Your task to perform on an android device: Search for vegetarian restaurants on Maps Image 0: 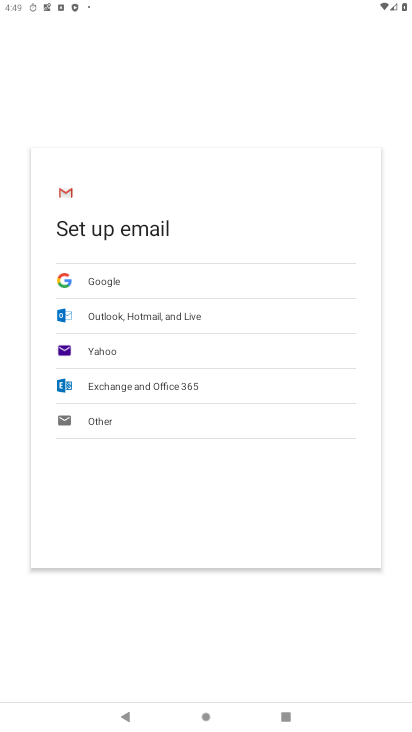
Step 0: press home button
Your task to perform on an android device: Search for vegetarian restaurants on Maps Image 1: 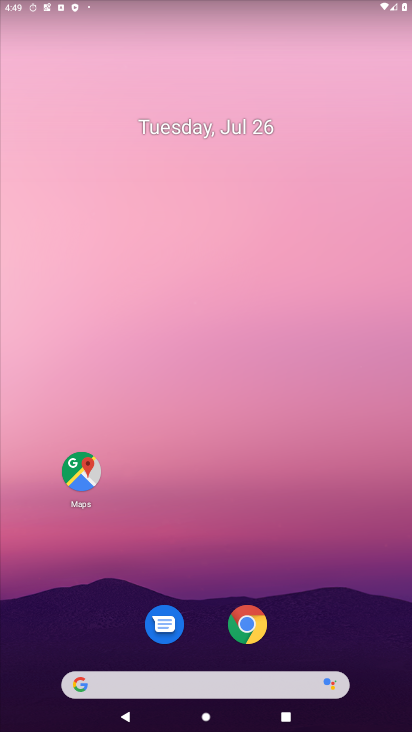
Step 1: drag from (264, 697) to (335, 22)
Your task to perform on an android device: Search for vegetarian restaurants on Maps Image 2: 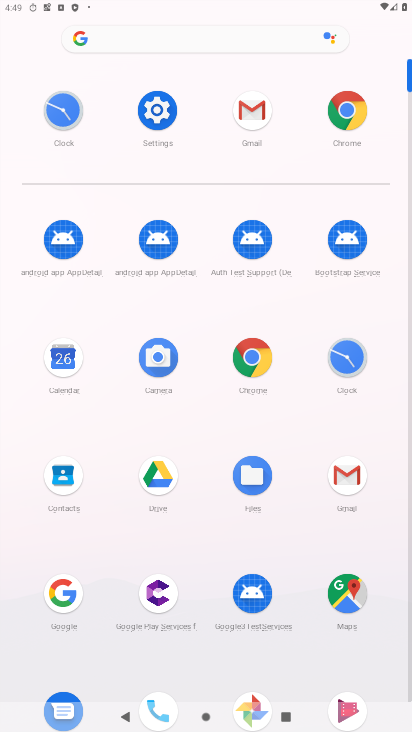
Step 2: click (334, 593)
Your task to perform on an android device: Search for vegetarian restaurants on Maps Image 3: 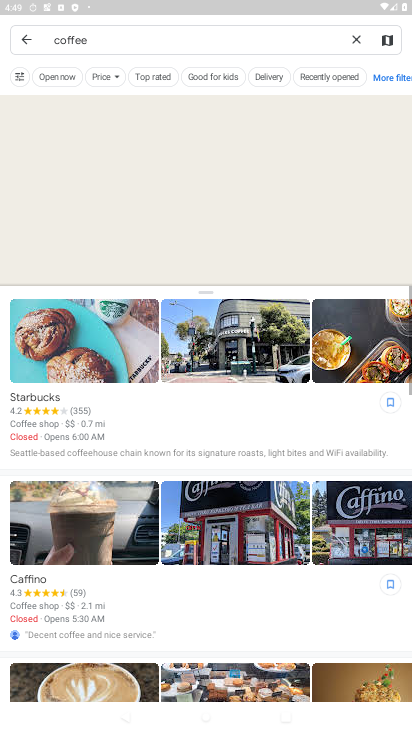
Step 3: click (357, 35)
Your task to perform on an android device: Search for vegetarian restaurants on Maps Image 4: 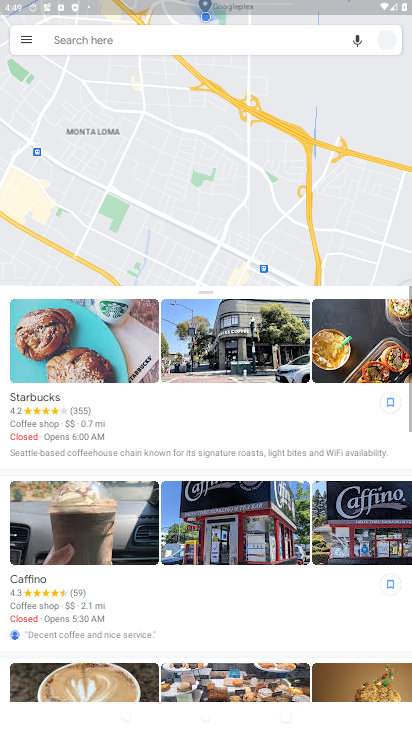
Step 4: click (121, 43)
Your task to perform on an android device: Search for vegetarian restaurants on Maps Image 5: 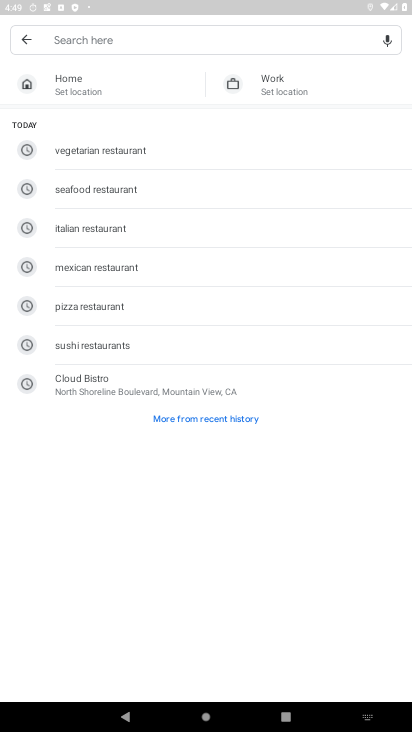
Step 5: click (86, 150)
Your task to perform on an android device: Search for vegetarian restaurants on Maps Image 6: 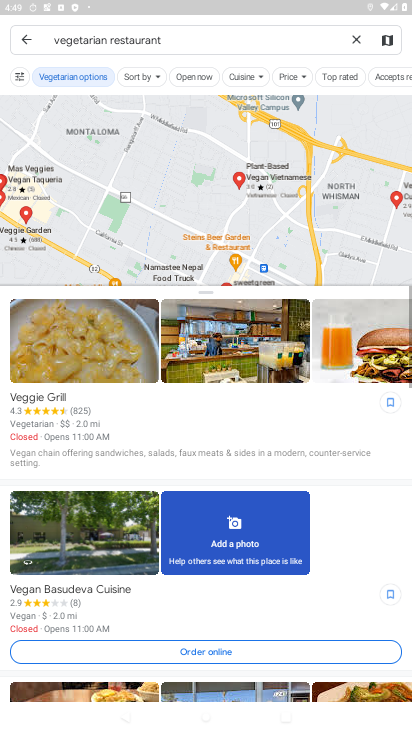
Step 6: task complete